Your task to perform on an android device: change timer sound Image 0: 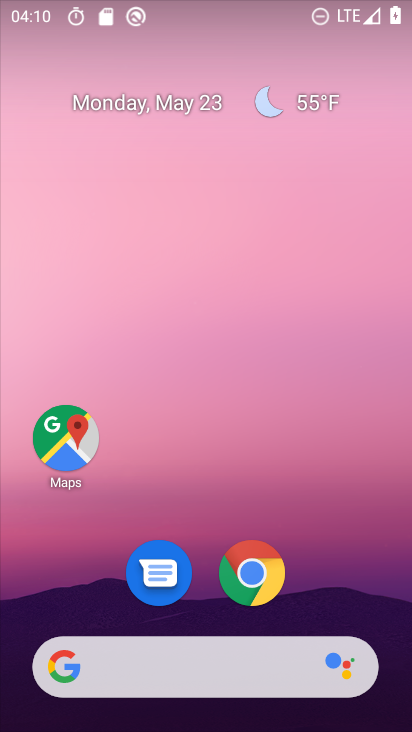
Step 0: drag from (328, 598) to (265, 54)
Your task to perform on an android device: change timer sound Image 1: 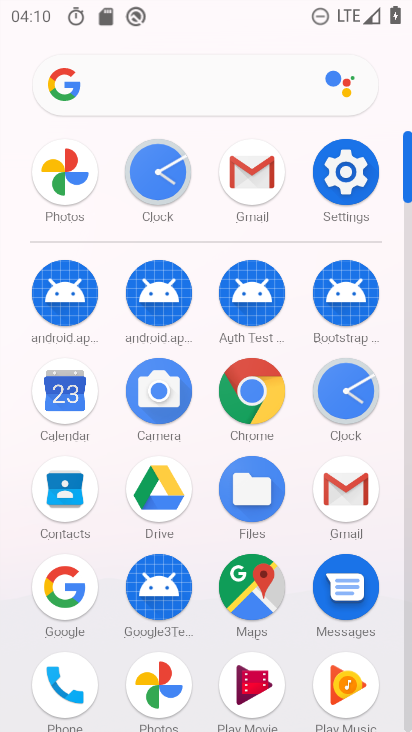
Step 1: click (349, 400)
Your task to perform on an android device: change timer sound Image 2: 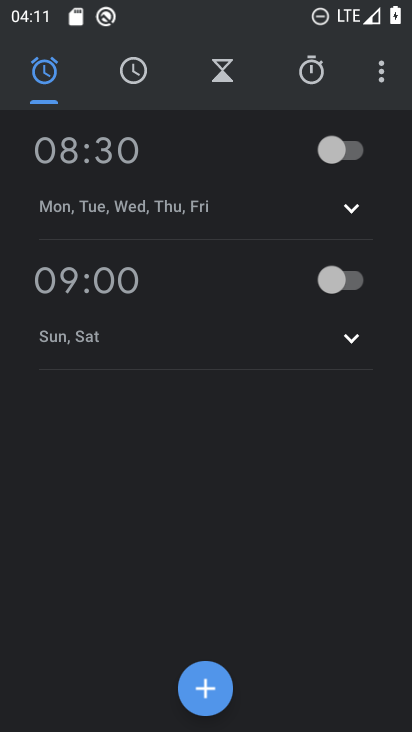
Step 2: click (382, 74)
Your task to perform on an android device: change timer sound Image 3: 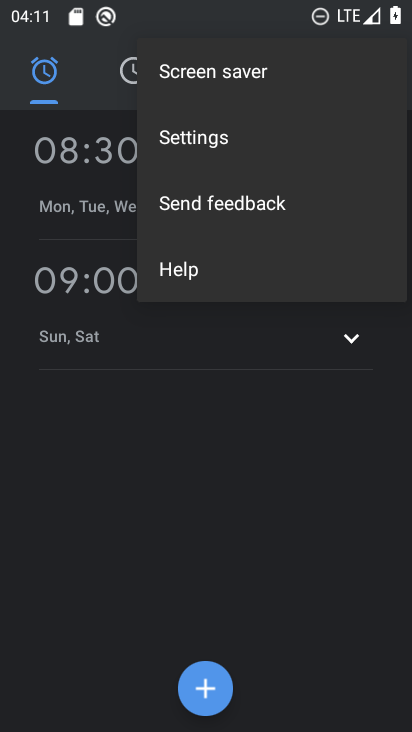
Step 3: click (206, 139)
Your task to perform on an android device: change timer sound Image 4: 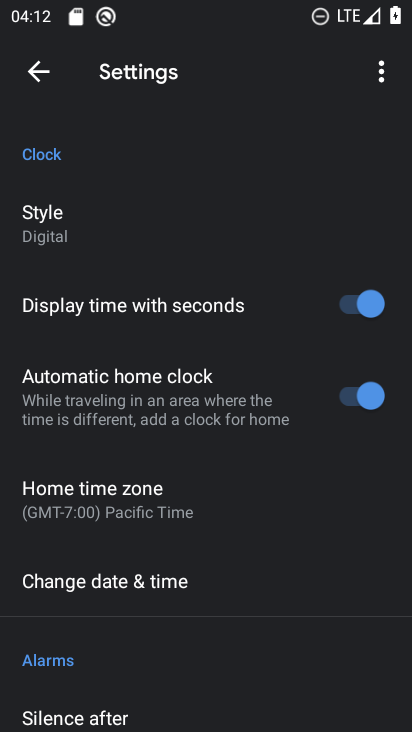
Step 4: drag from (222, 587) to (244, 138)
Your task to perform on an android device: change timer sound Image 5: 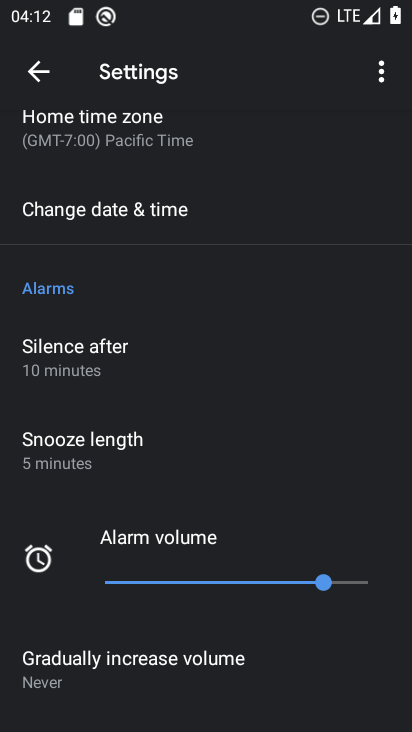
Step 5: drag from (257, 654) to (293, 206)
Your task to perform on an android device: change timer sound Image 6: 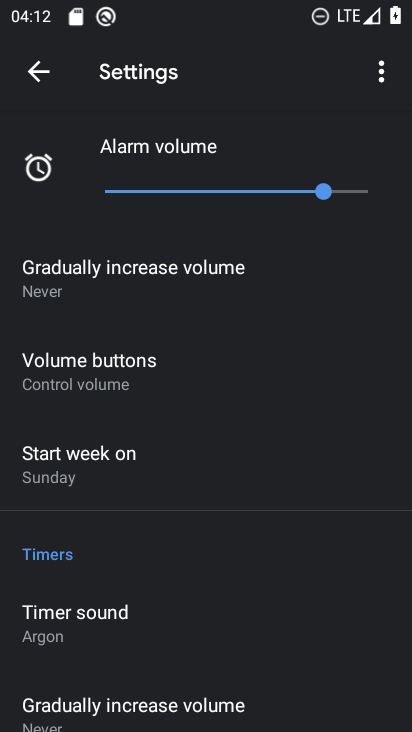
Step 6: click (97, 616)
Your task to perform on an android device: change timer sound Image 7: 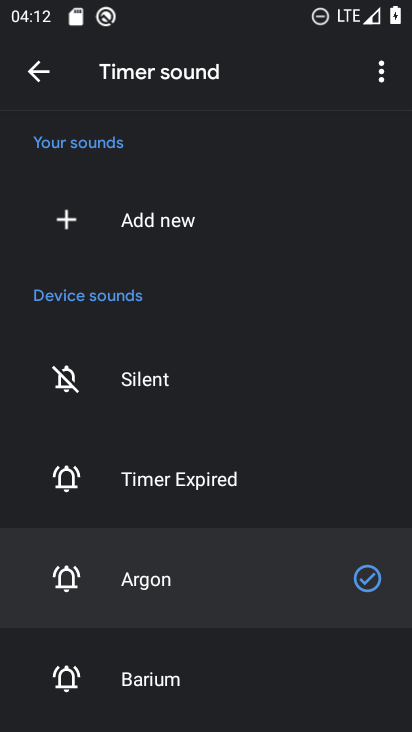
Step 7: click (174, 682)
Your task to perform on an android device: change timer sound Image 8: 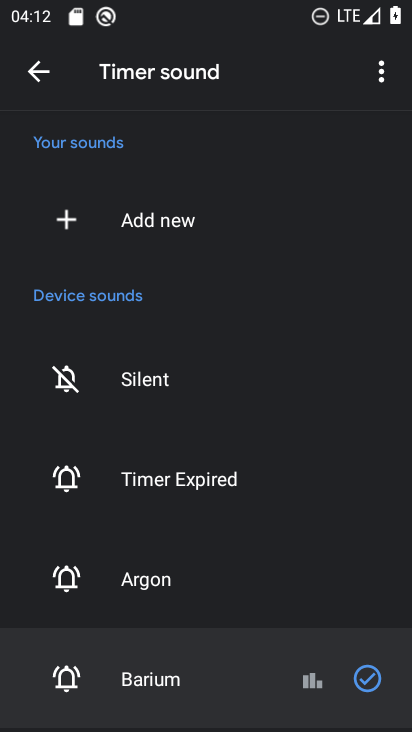
Step 8: task complete